Your task to perform on an android device: toggle data saver in the chrome app Image 0: 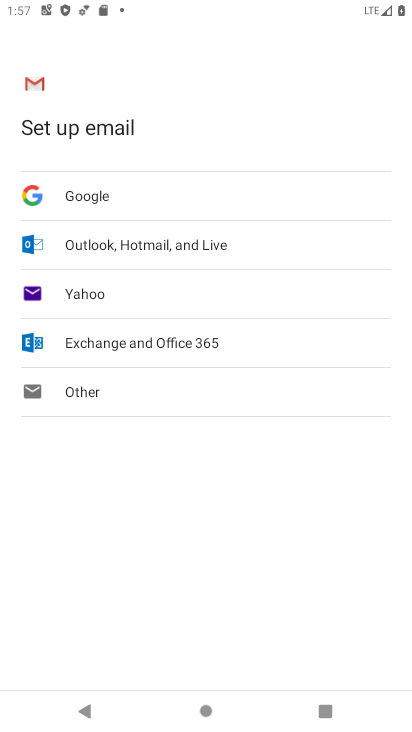
Step 0: press home button
Your task to perform on an android device: toggle data saver in the chrome app Image 1: 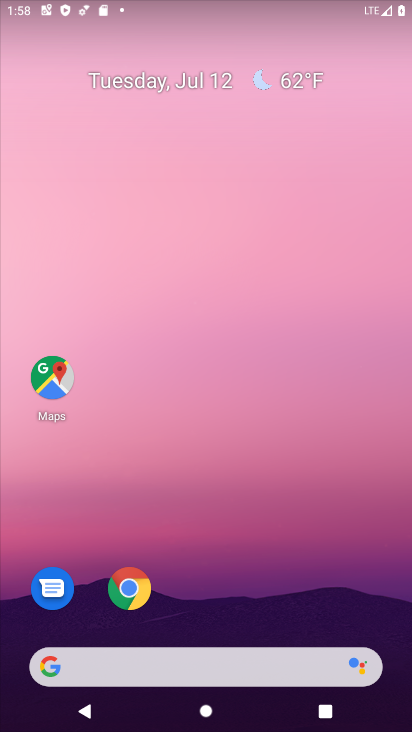
Step 1: click (130, 576)
Your task to perform on an android device: toggle data saver in the chrome app Image 2: 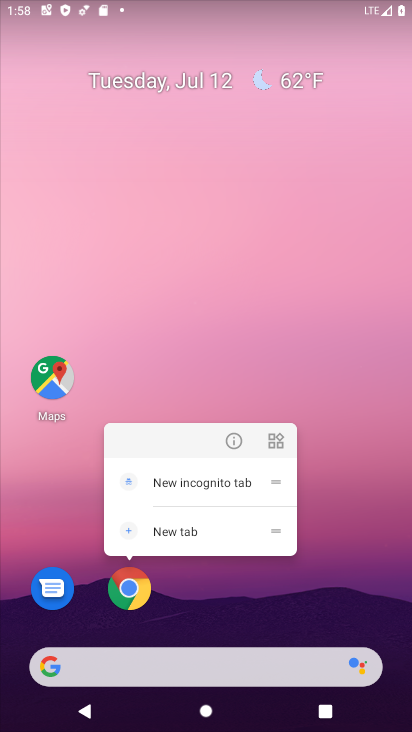
Step 2: click (129, 576)
Your task to perform on an android device: toggle data saver in the chrome app Image 3: 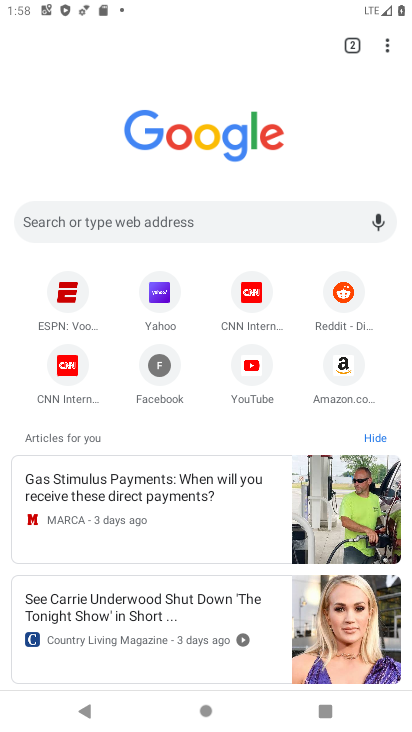
Step 3: click (385, 44)
Your task to perform on an android device: toggle data saver in the chrome app Image 4: 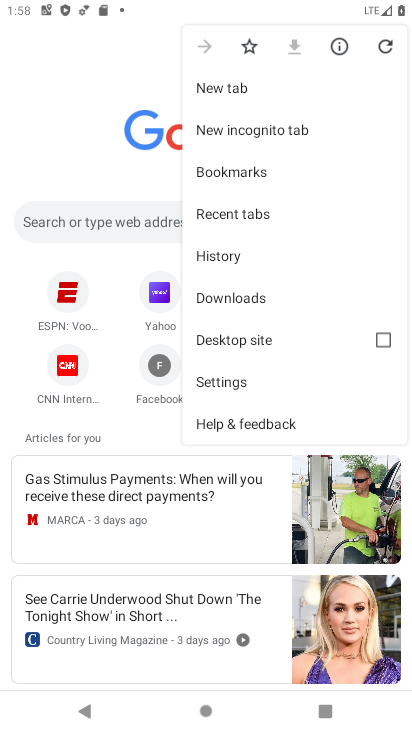
Step 4: click (217, 385)
Your task to perform on an android device: toggle data saver in the chrome app Image 5: 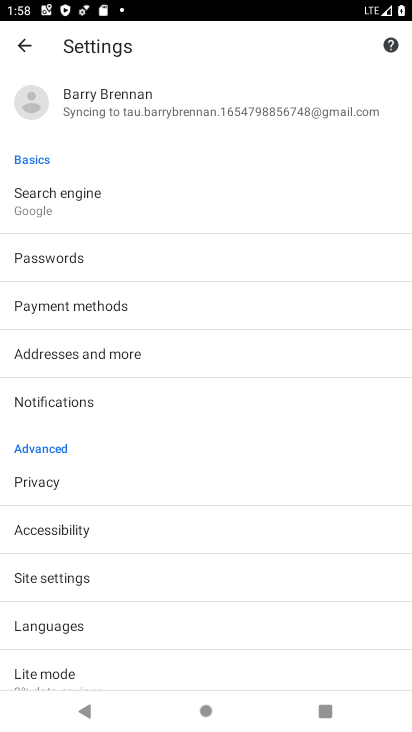
Step 5: drag from (193, 612) to (184, 99)
Your task to perform on an android device: toggle data saver in the chrome app Image 6: 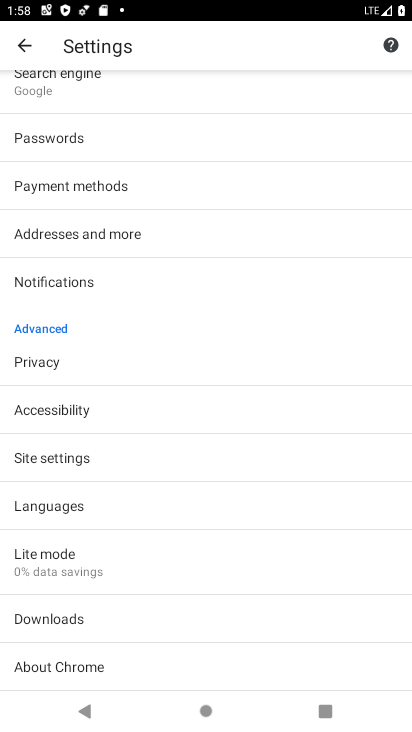
Step 6: click (84, 555)
Your task to perform on an android device: toggle data saver in the chrome app Image 7: 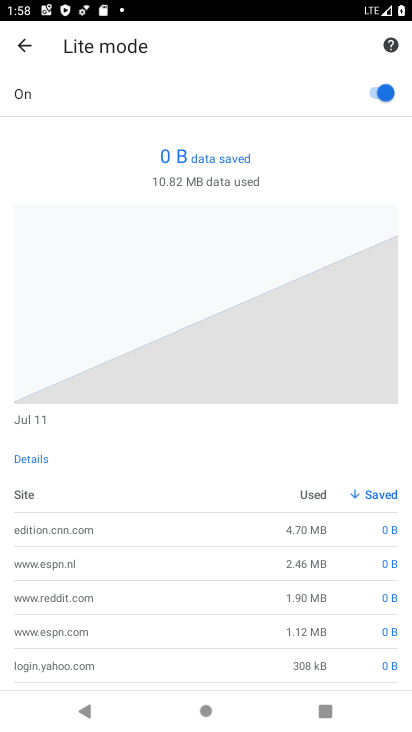
Step 7: click (387, 82)
Your task to perform on an android device: toggle data saver in the chrome app Image 8: 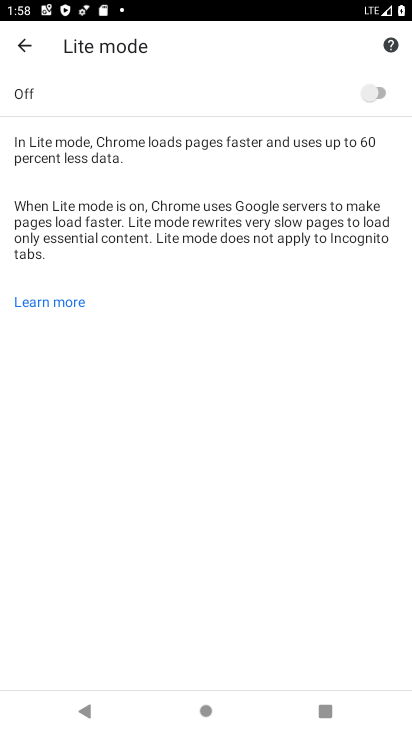
Step 8: task complete